Your task to perform on an android device: turn on improve location accuracy Image 0: 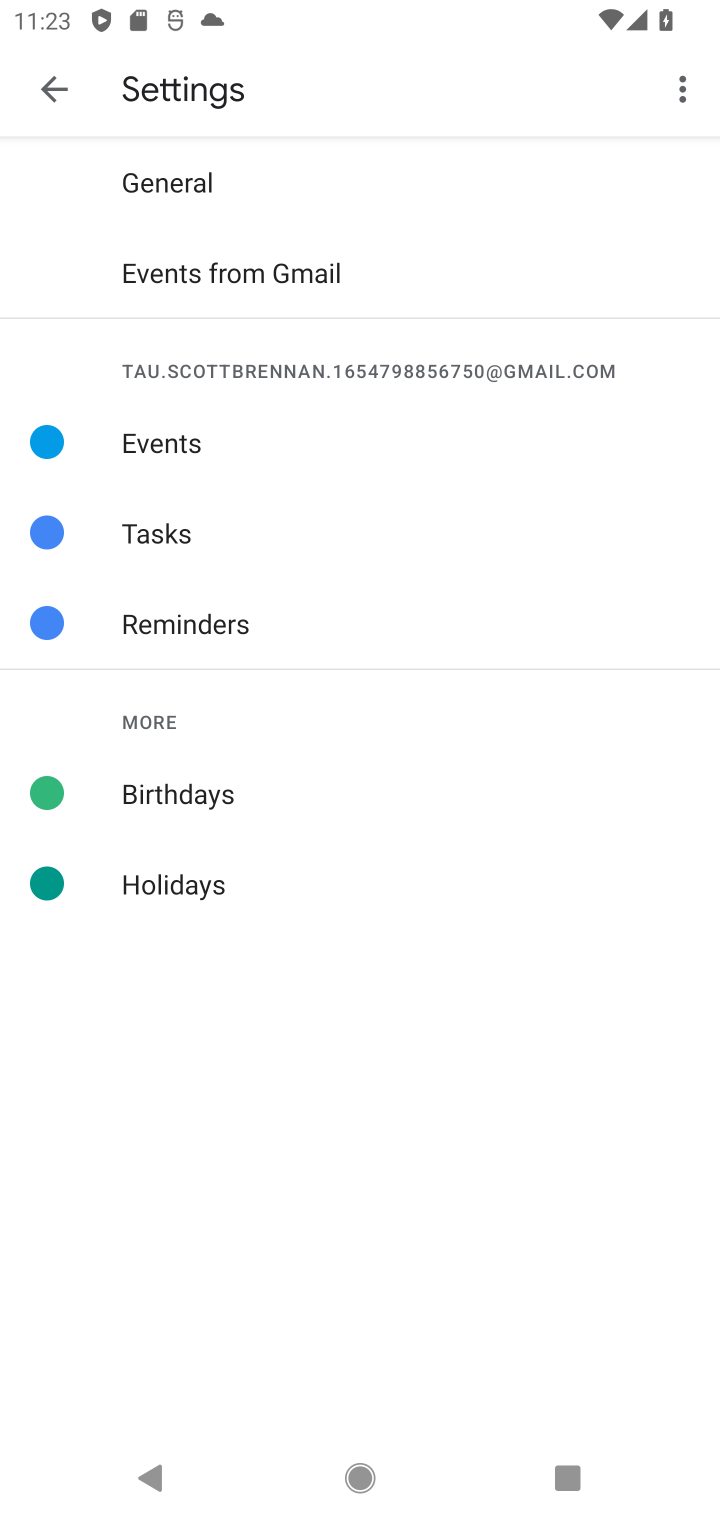
Step 0: press home button
Your task to perform on an android device: turn on improve location accuracy Image 1: 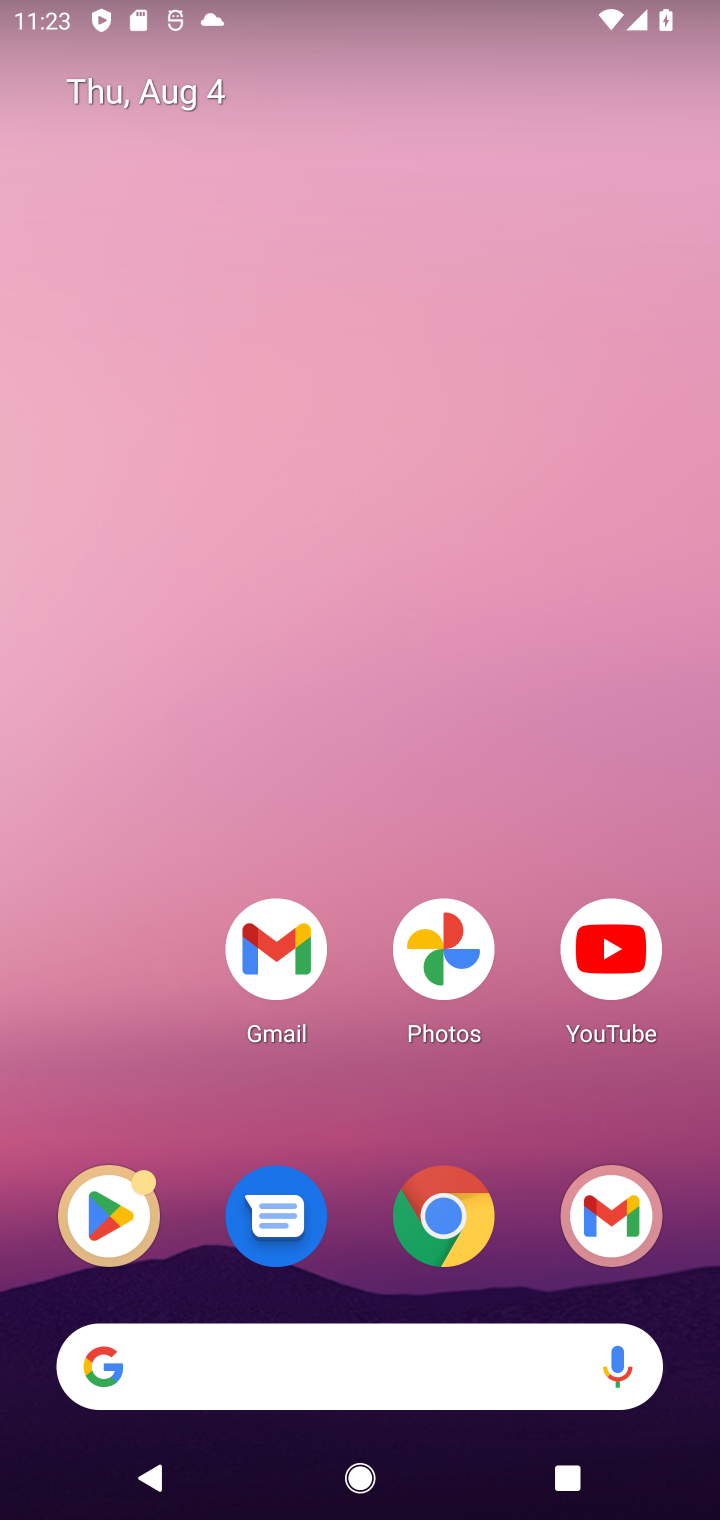
Step 1: drag from (280, 1381) to (470, 197)
Your task to perform on an android device: turn on improve location accuracy Image 2: 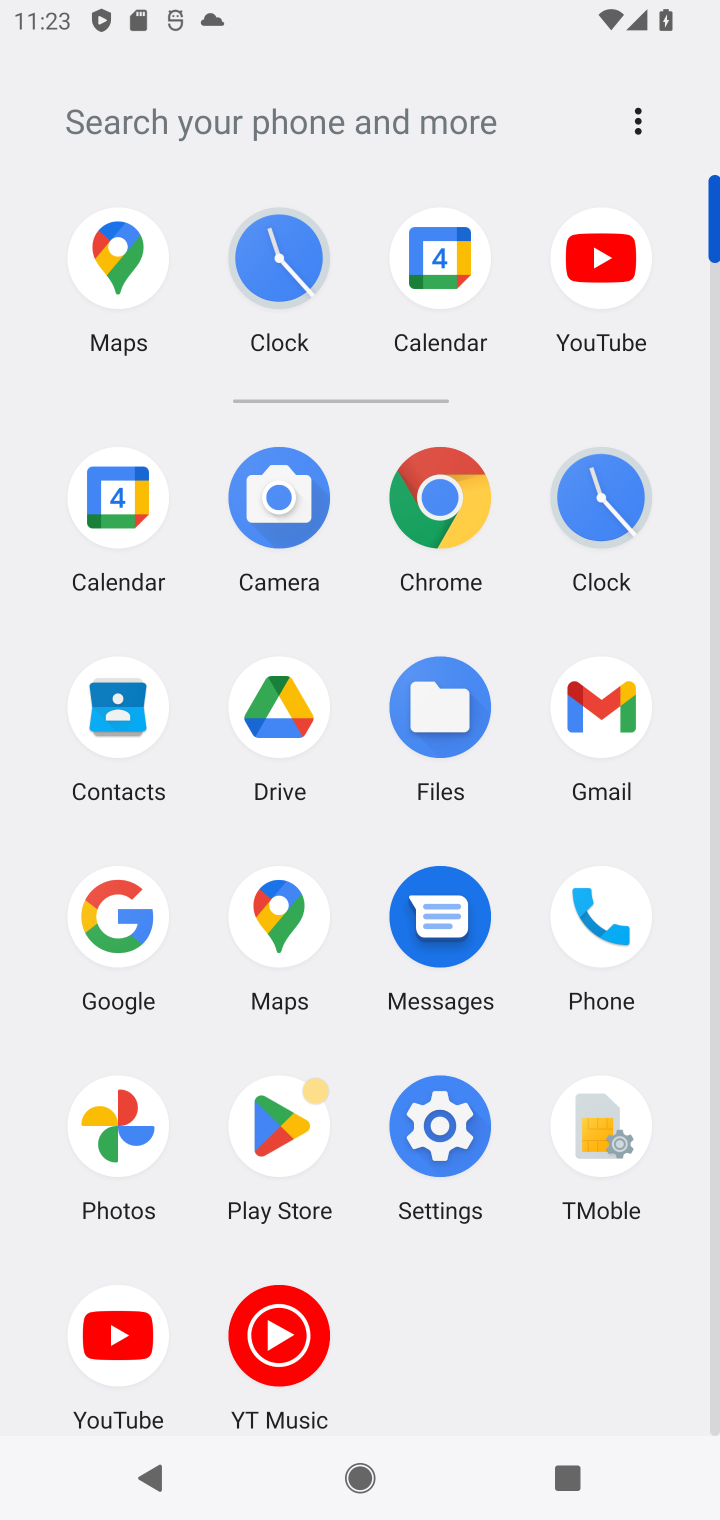
Step 2: click (442, 1129)
Your task to perform on an android device: turn on improve location accuracy Image 3: 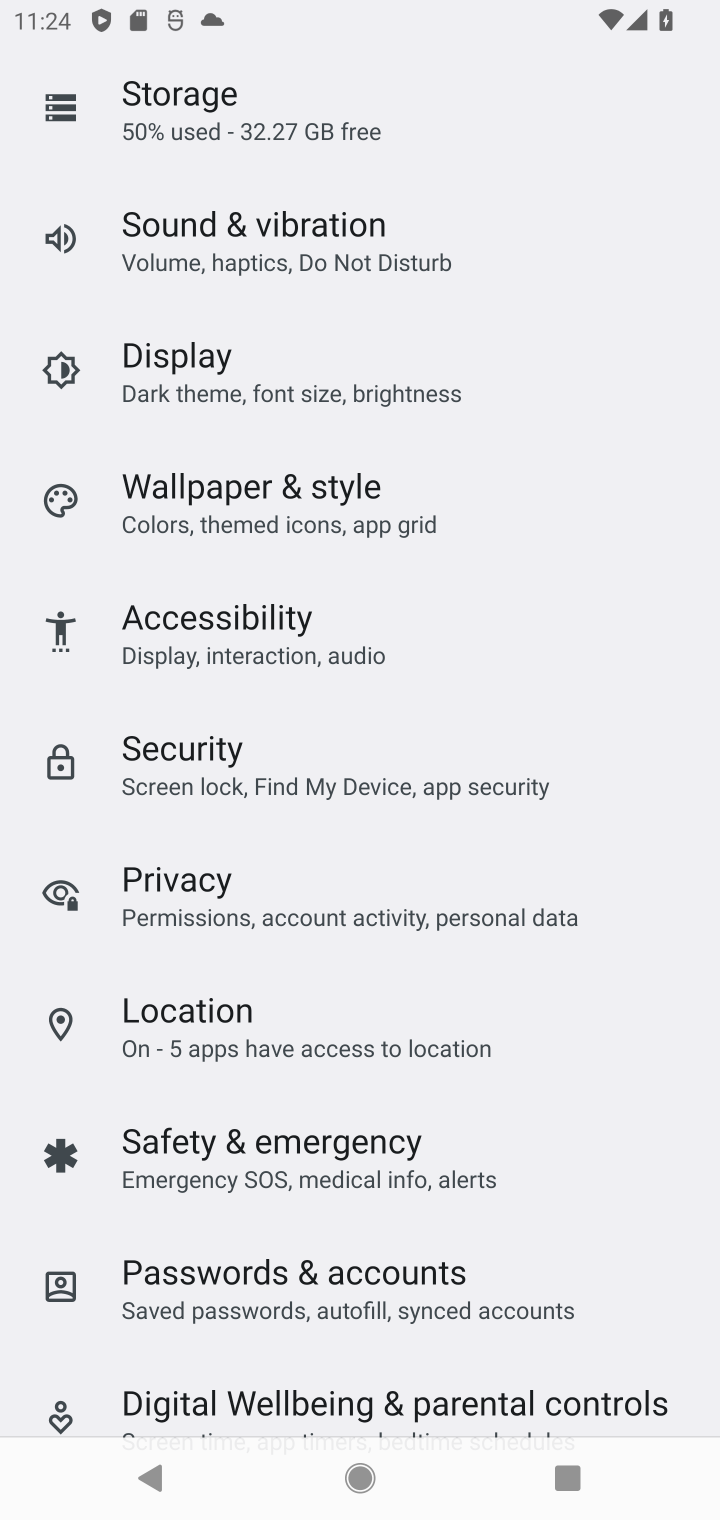
Step 3: drag from (295, 201) to (337, 532)
Your task to perform on an android device: turn on improve location accuracy Image 4: 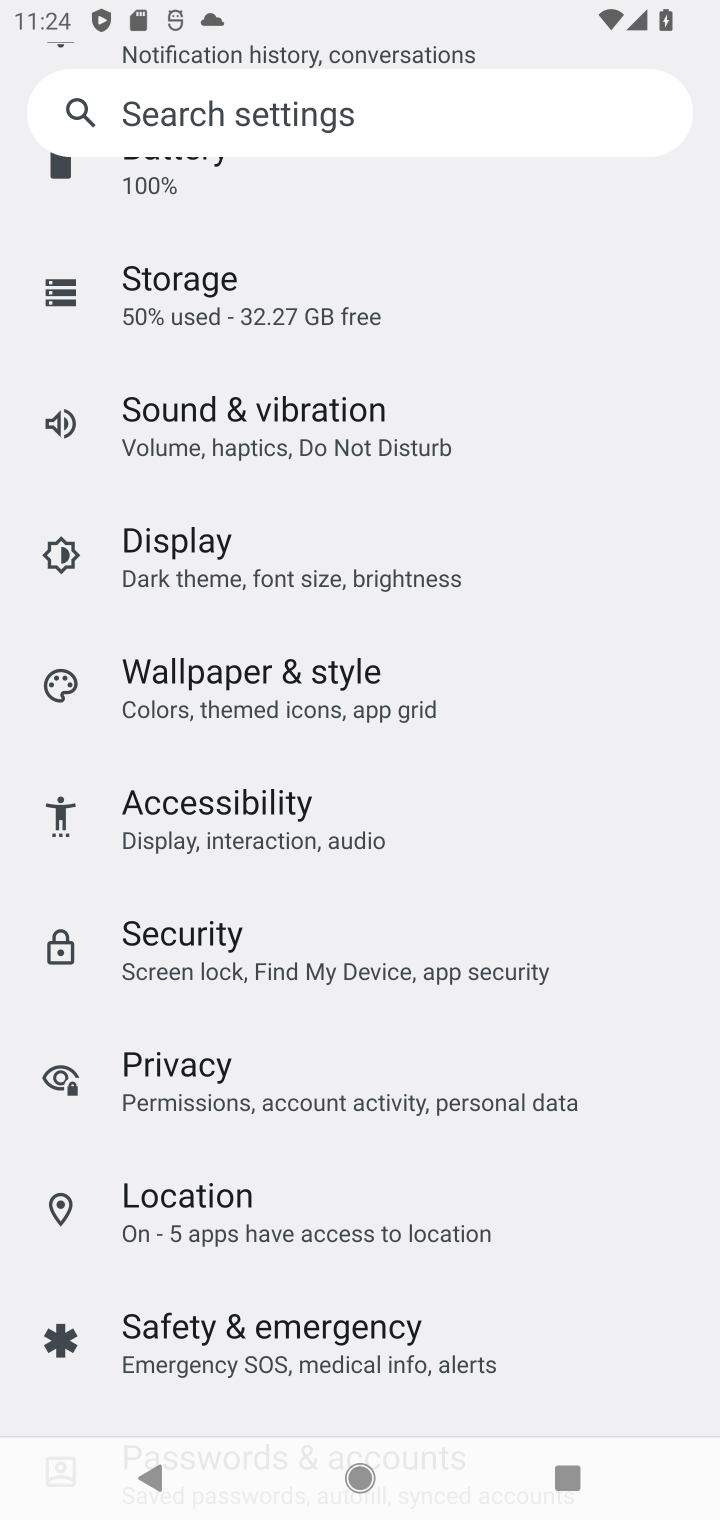
Step 4: drag from (399, 281) to (443, 802)
Your task to perform on an android device: turn on improve location accuracy Image 5: 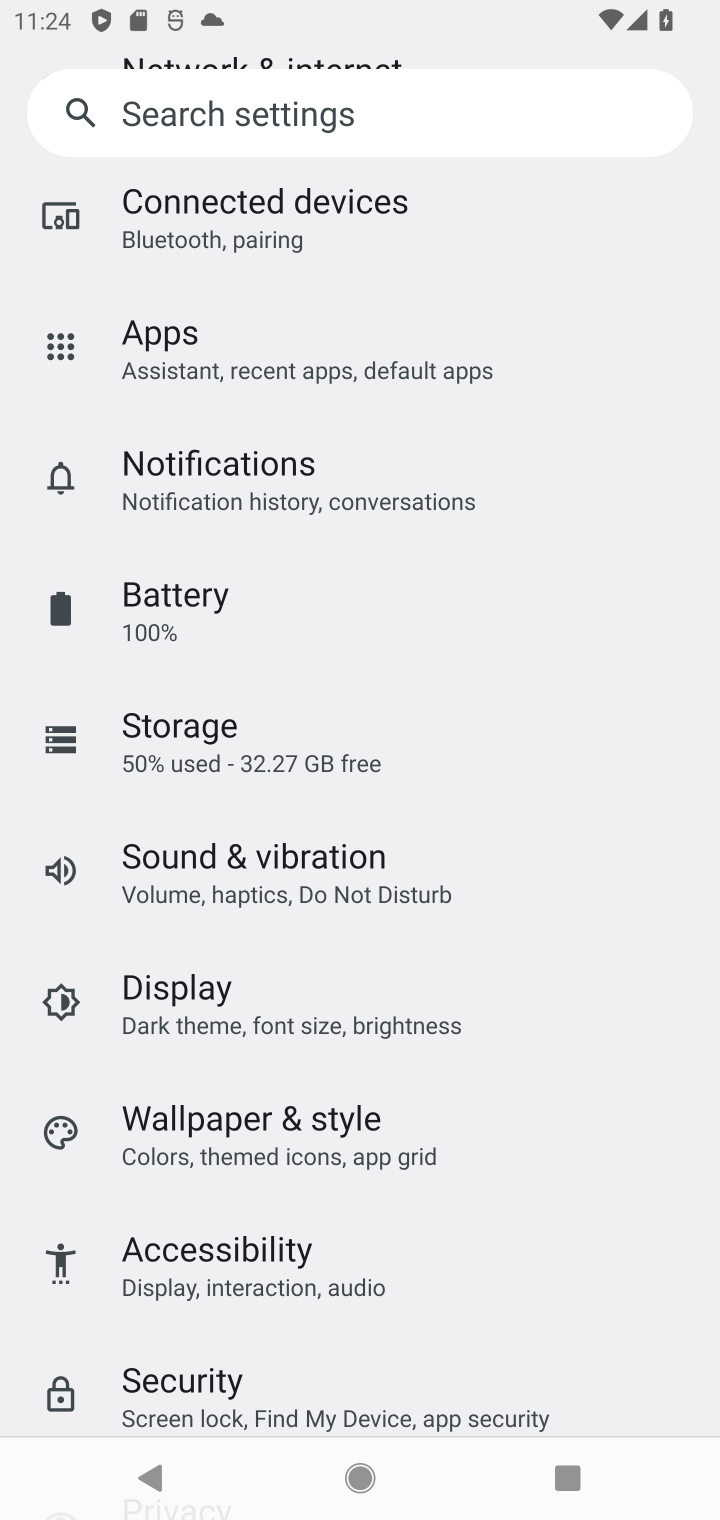
Step 5: drag from (399, 1285) to (513, 991)
Your task to perform on an android device: turn on improve location accuracy Image 6: 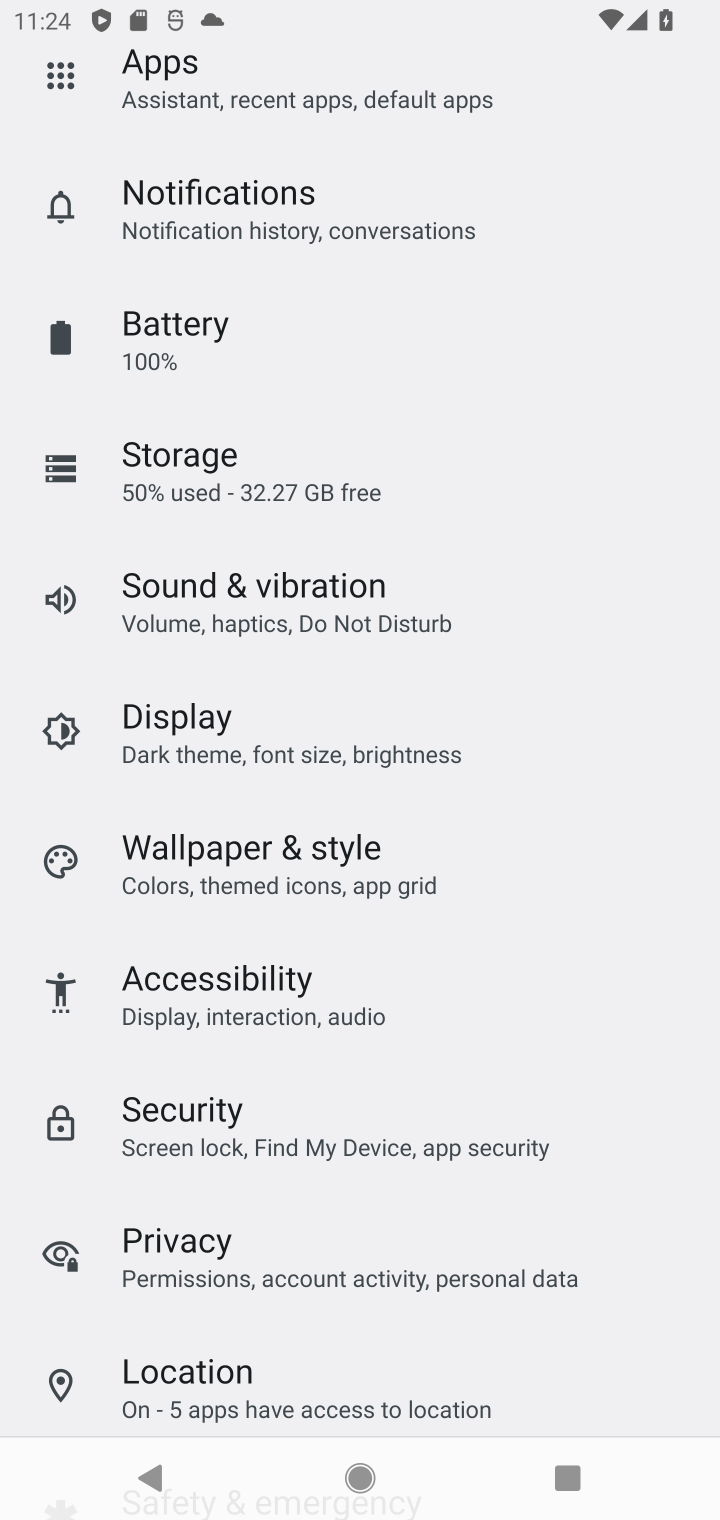
Step 6: click (227, 1391)
Your task to perform on an android device: turn on improve location accuracy Image 7: 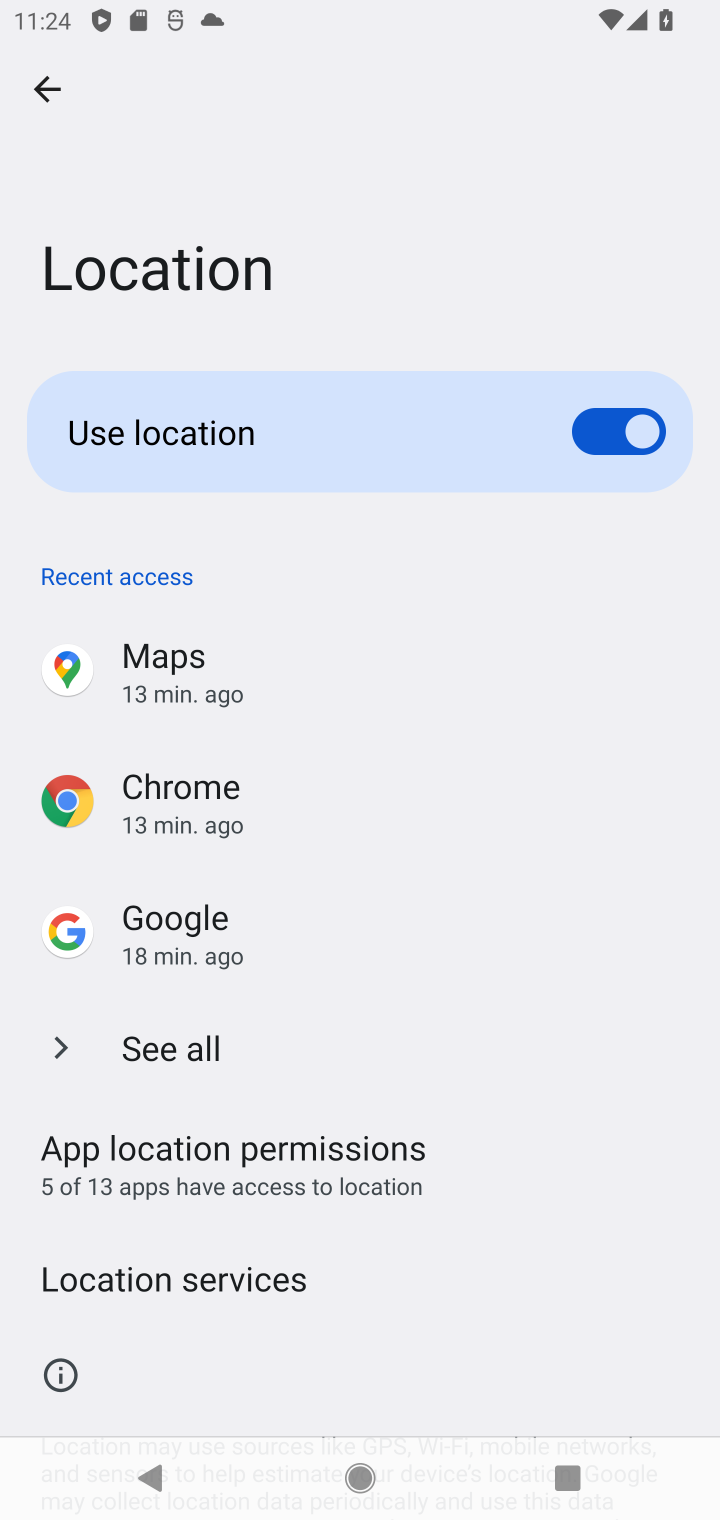
Step 7: click (246, 1287)
Your task to perform on an android device: turn on improve location accuracy Image 8: 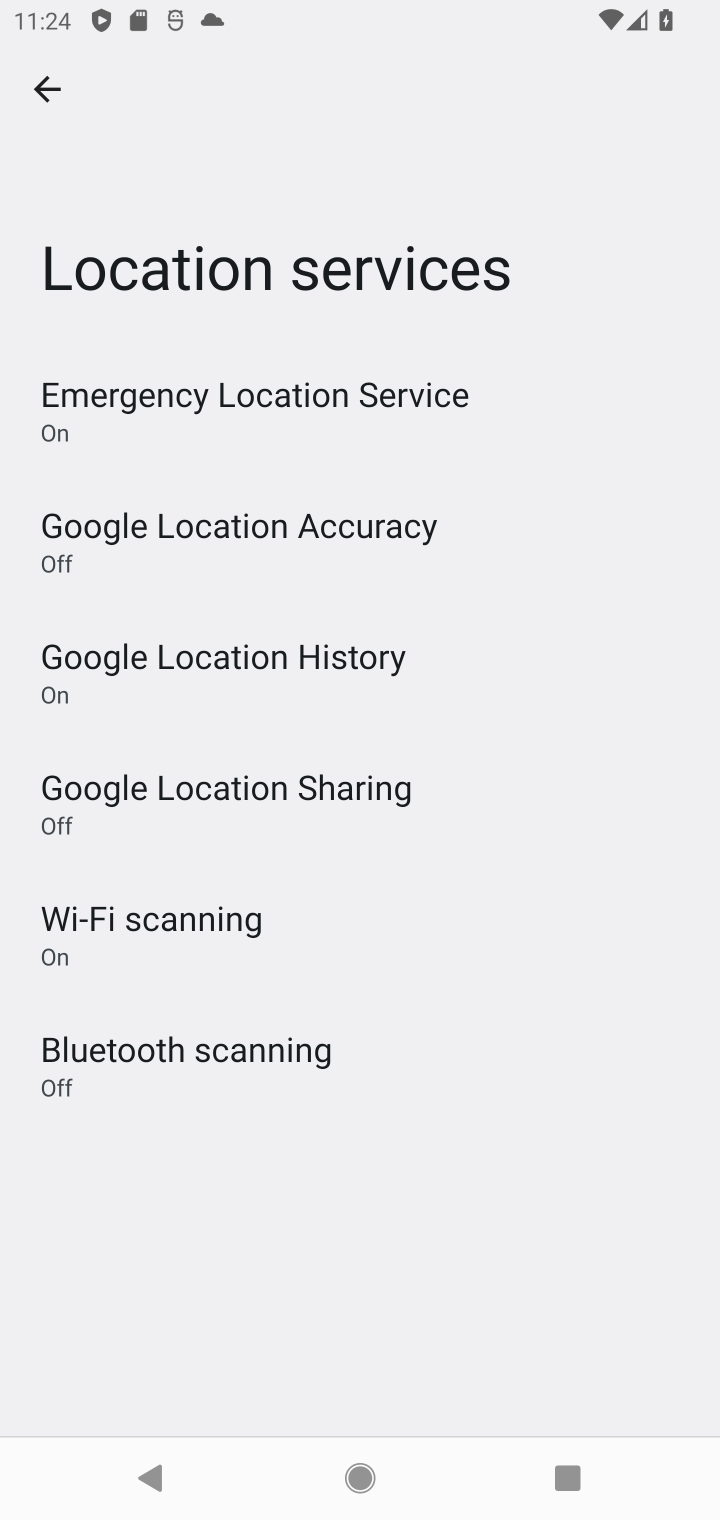
Step 8: click (344, 527)
Your task to perform on an android device: turn on improve location accuracy Image 9: 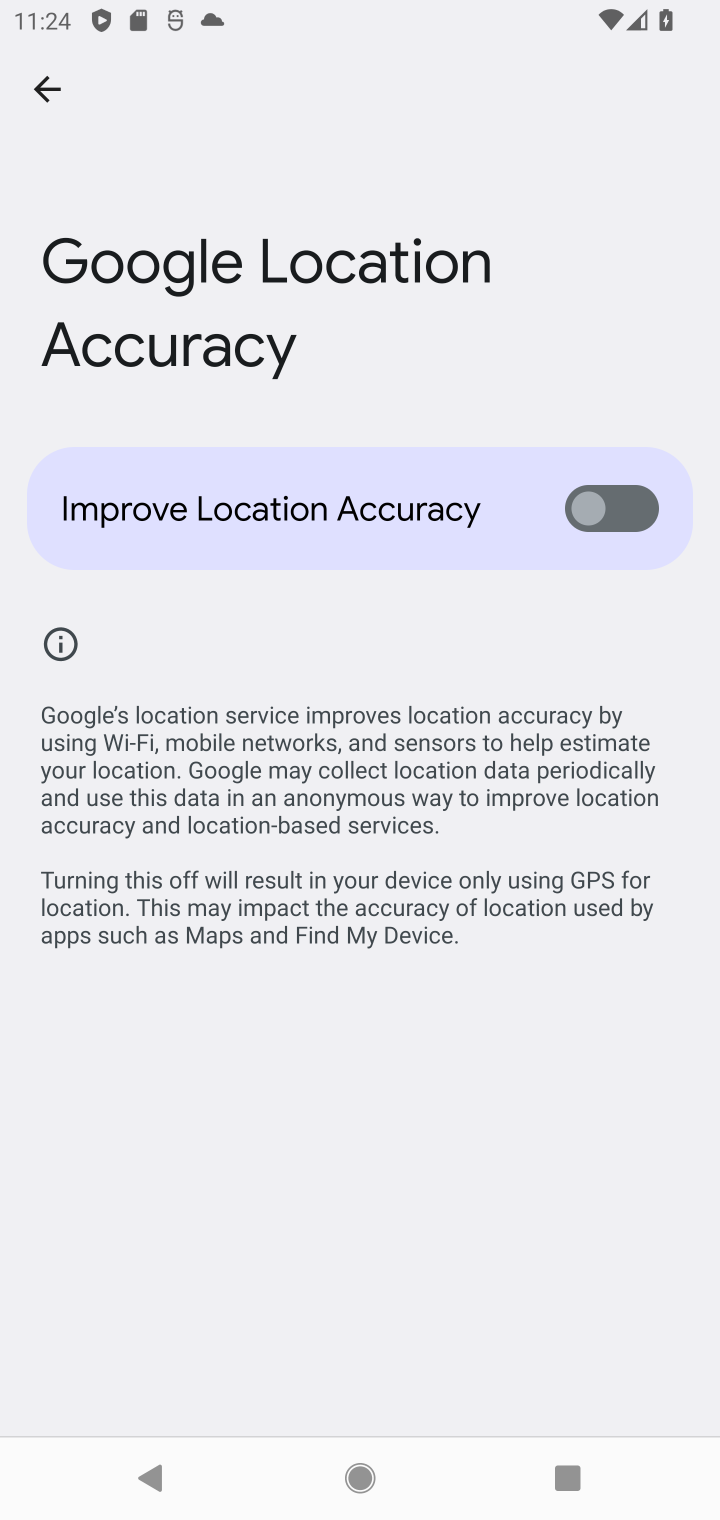
Step 9: click (572, 518)
Your task to perform on an android device: turn on improve location accuracy Image 10: 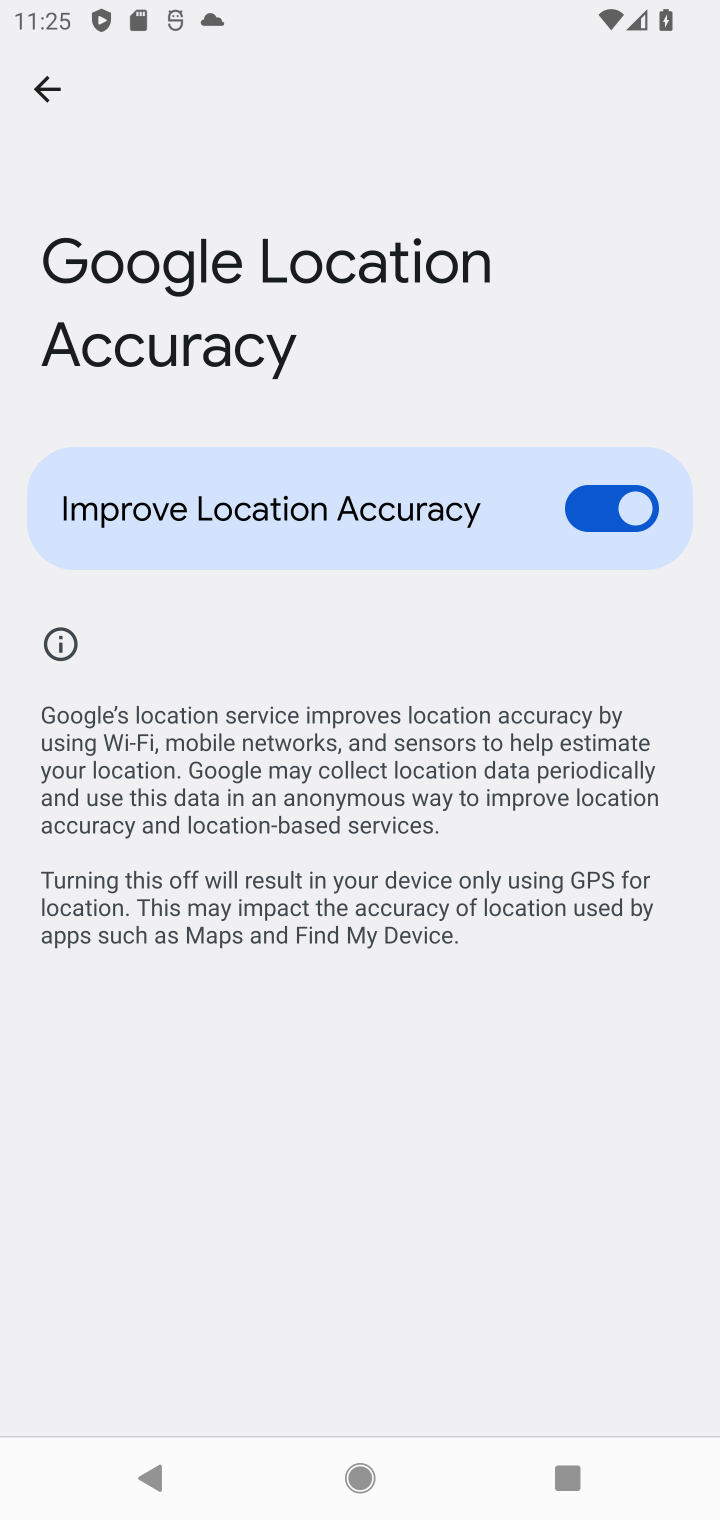
Step 10: task complete